Your task to perform on an android device: empty trash in google photos Image 0: 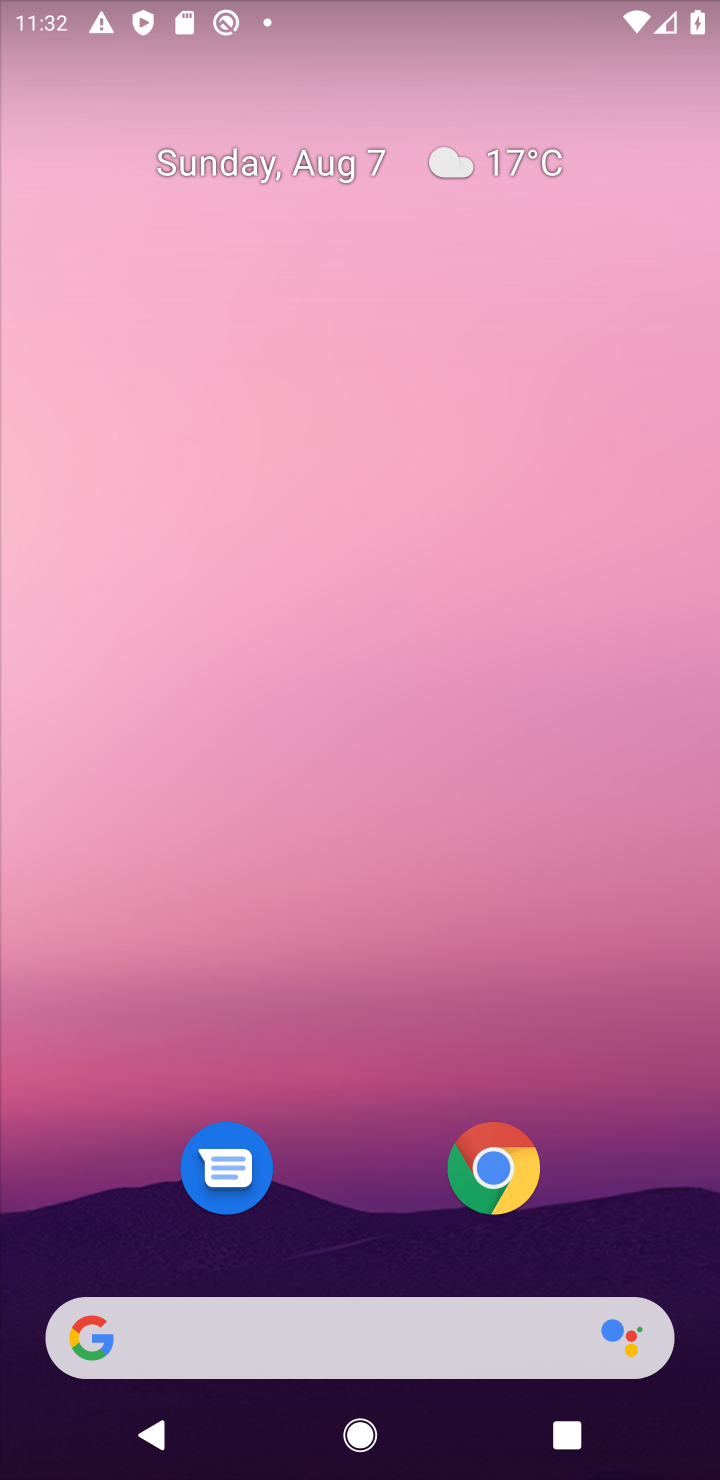
Step 0: drag from (69, 1411) to (377, 452)
Your task to perform on an android device: empty trash in google photos Image 1: 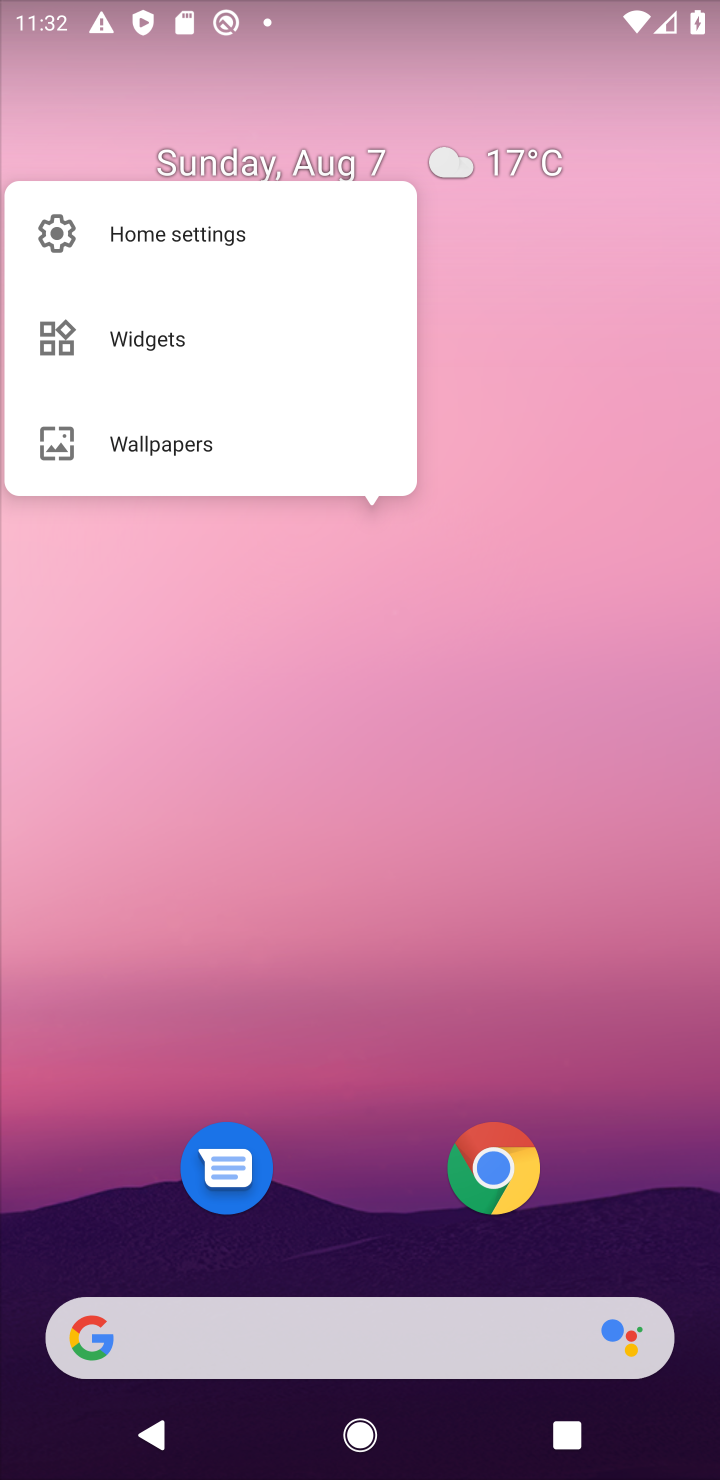
Step 1: click (654, 1016)
Your task to perform on an android device: empty trash in google photos Image 2: 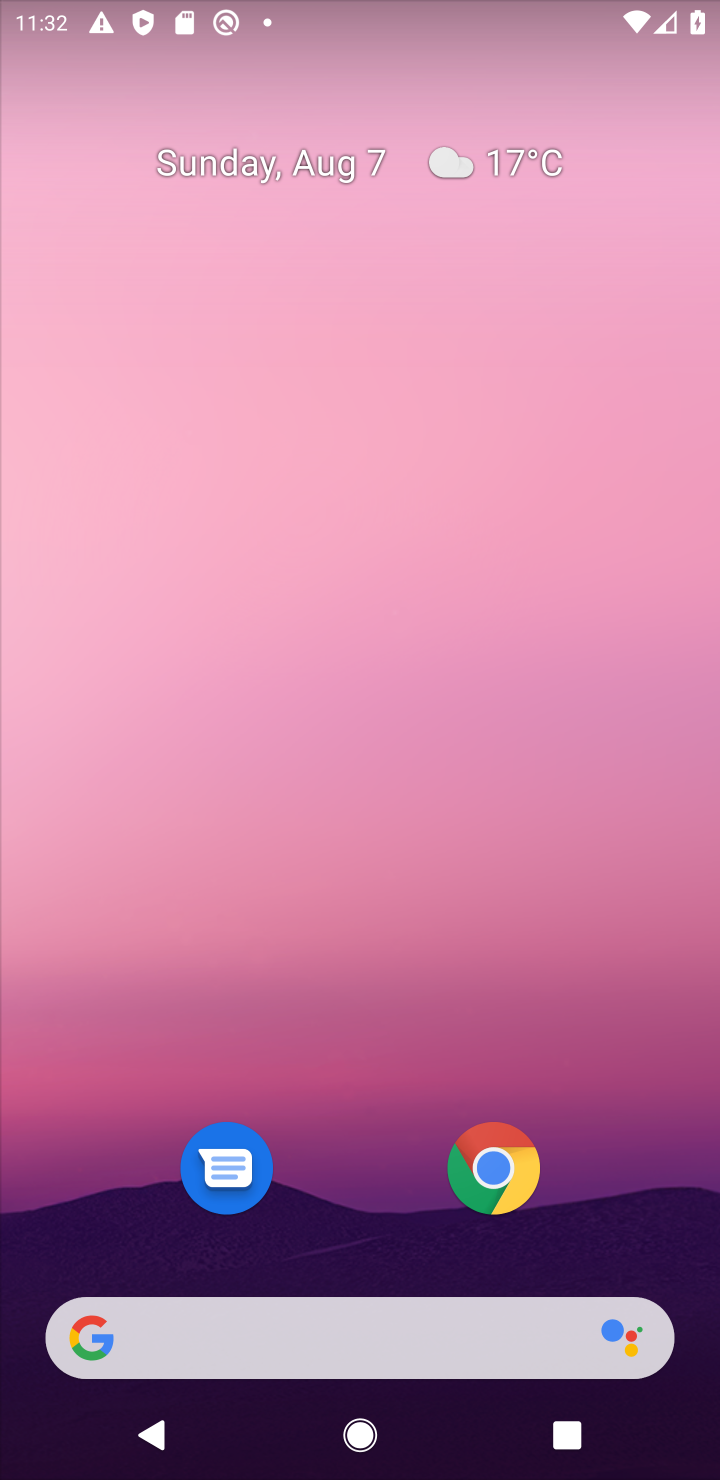
Step 2: drag from (38, 1429) to (623, 480)
Your task to perform on an android device: empty trash in google photos Image 3: 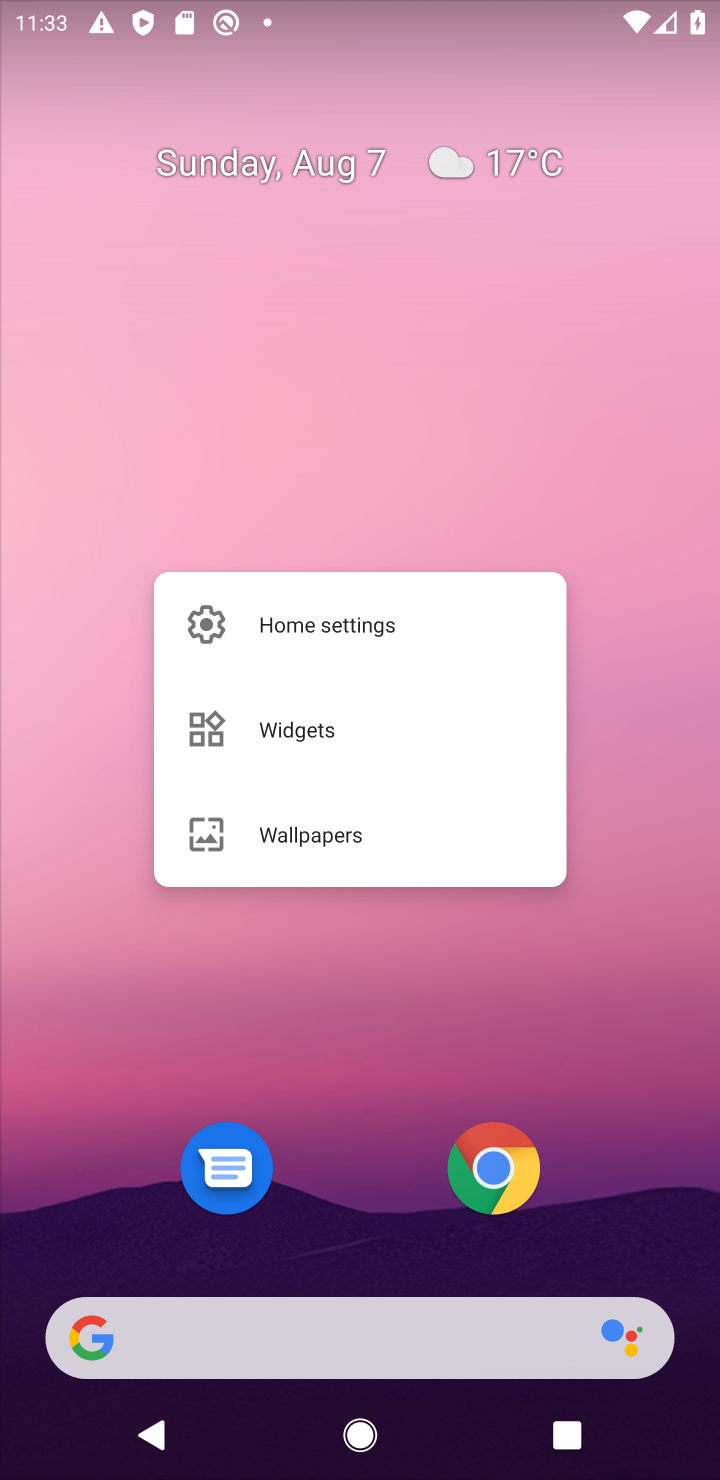
Step 3: click (39, 1445)
Your task to perform on an android device: empty trash in google photos Image 4: 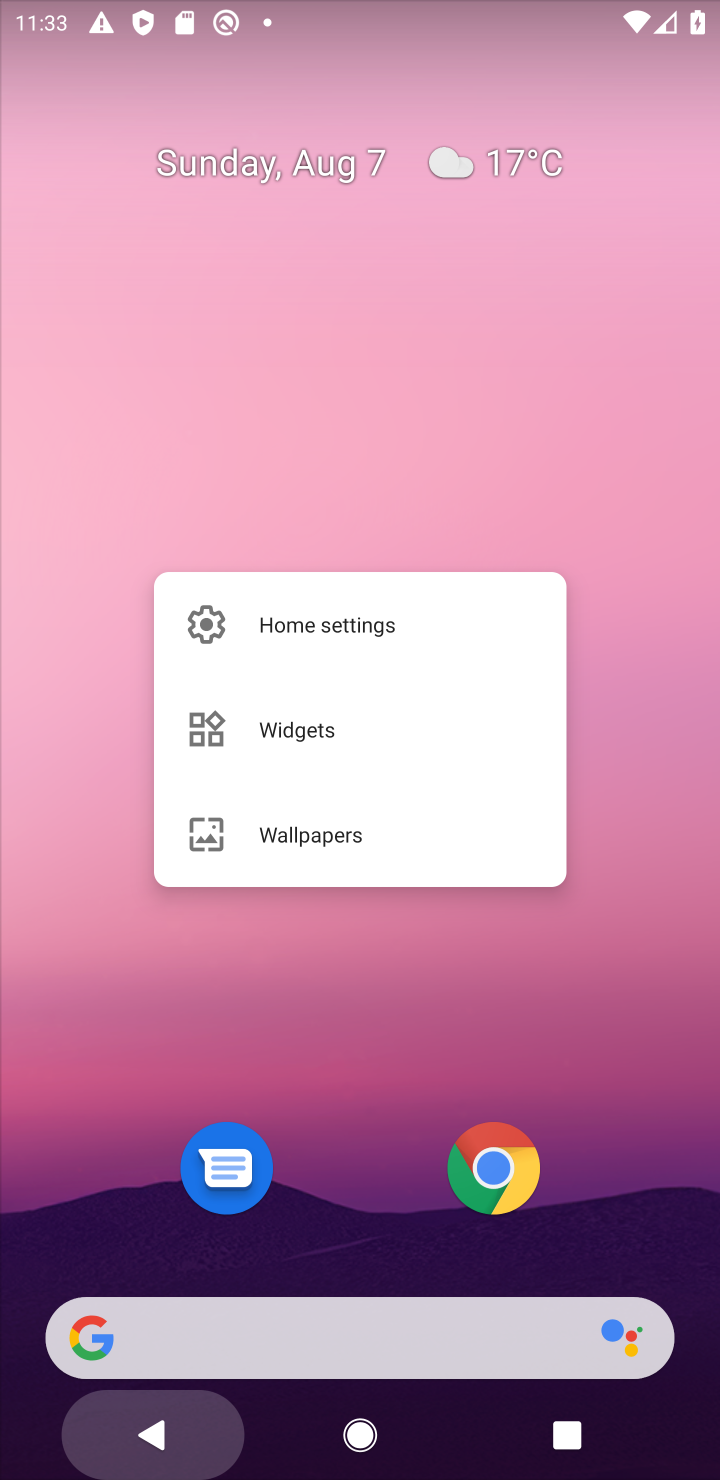
Step 4: task complete